Your task to perform on an android device: Open the stopwatch Image 0: 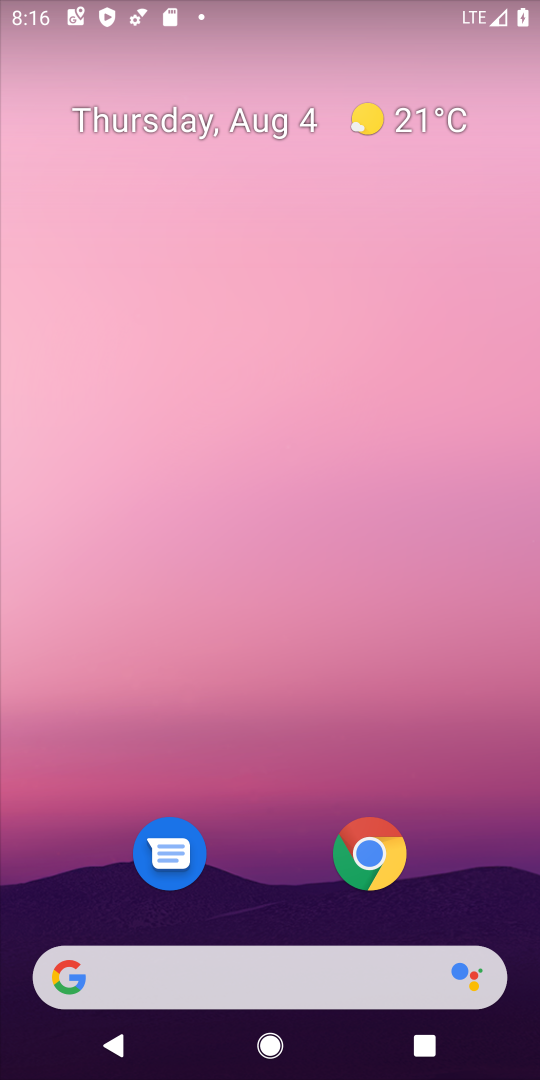
Step 0: drag from (275, 949) to (206, 9)
Your task to perform on an android device: Open the stopwatch Image 1: 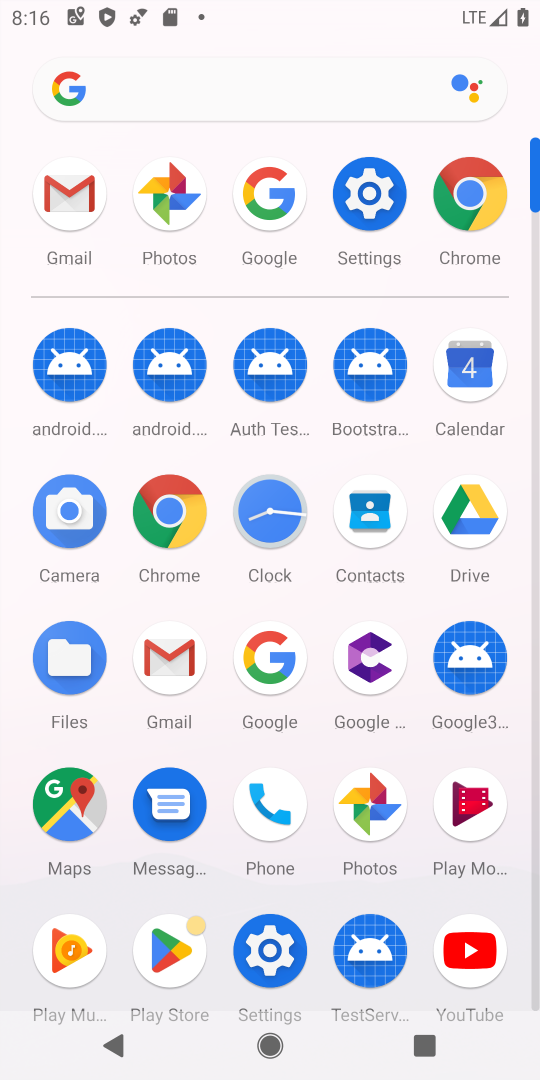
Step 1: click (250, 513)
Your task to perform on an android device: Open the stopwatch Image 2: 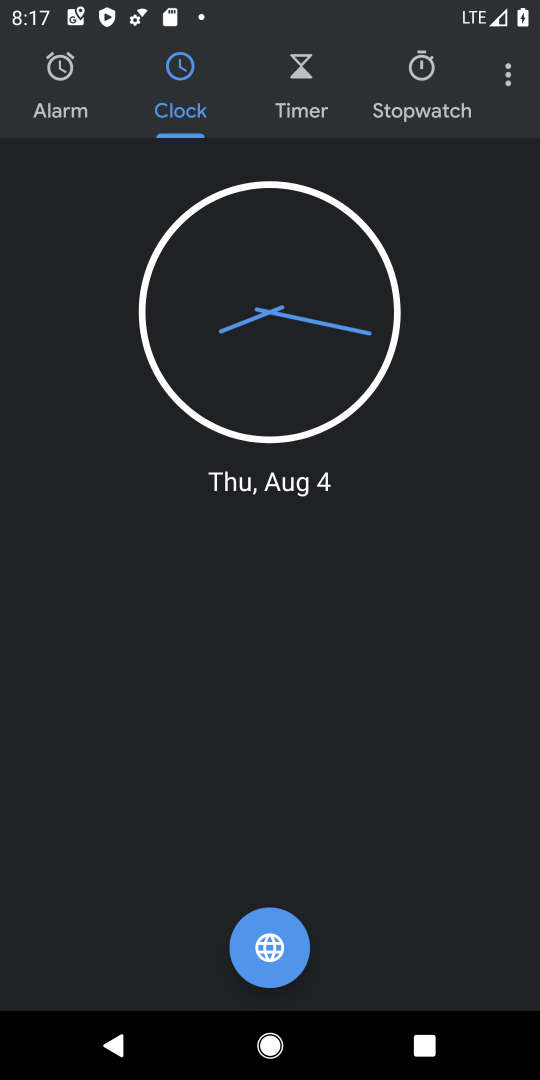
Step 2: click (402, 104)
Your task to perform on an android device: Open the stopwatch Image 3: 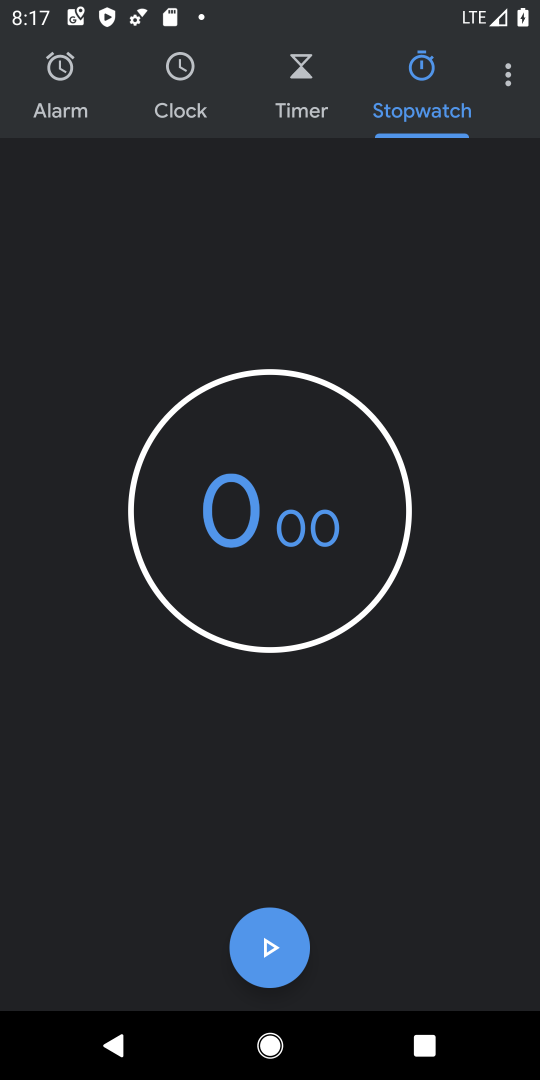
Step 3: task complete